Your task to perform on an android device: When is my next meeting? Image 0: 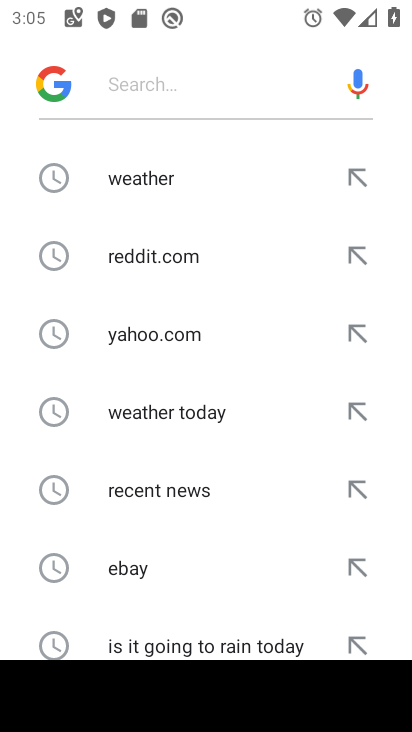
Step 0: press home button
Your task to perform on an android device: When is my next meeting? Image 1: 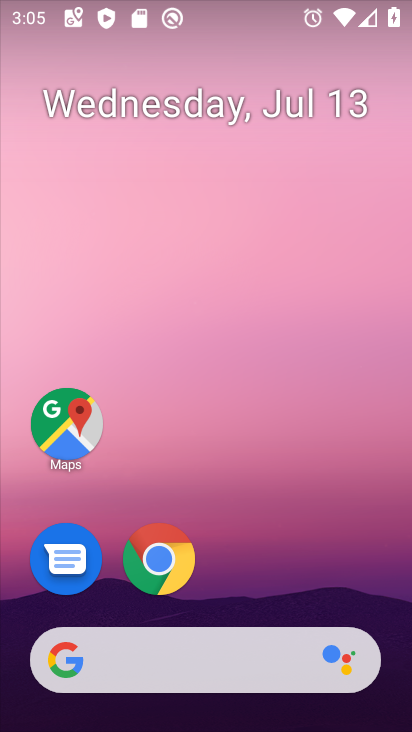
Step 1: drag from (345, 591) to (350, 189)
Your task to perform on an android device: When is my next meeting? Image 2: 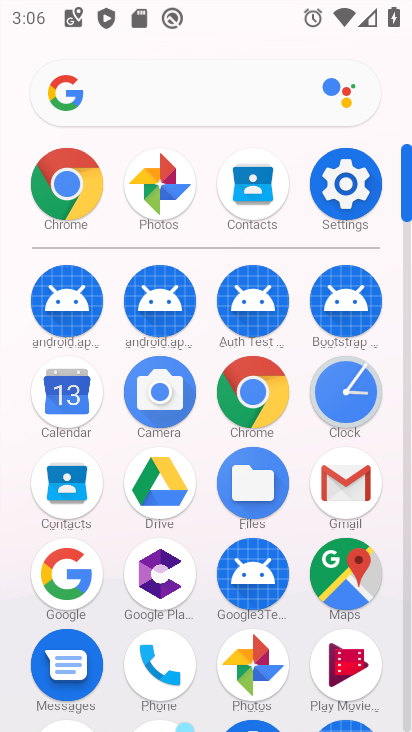
Step 2: click (71, 398)
Your task to perform on an android device: When is my next meeting? Image 3: 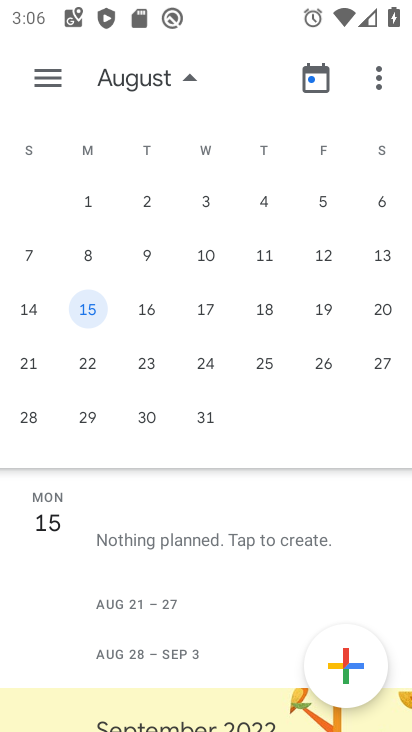
Step 3: task complete